Your task to perform on an android device: Open Yahoo.com Image 0: 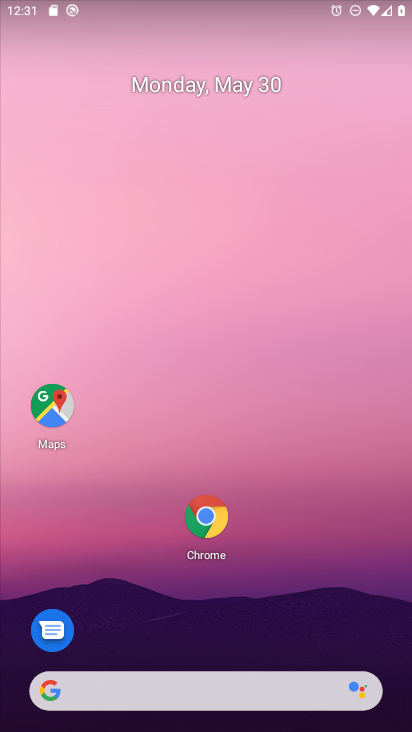
Step 0: press home button
Your task to perform on an android device: Open Yahoo.com Image 1: 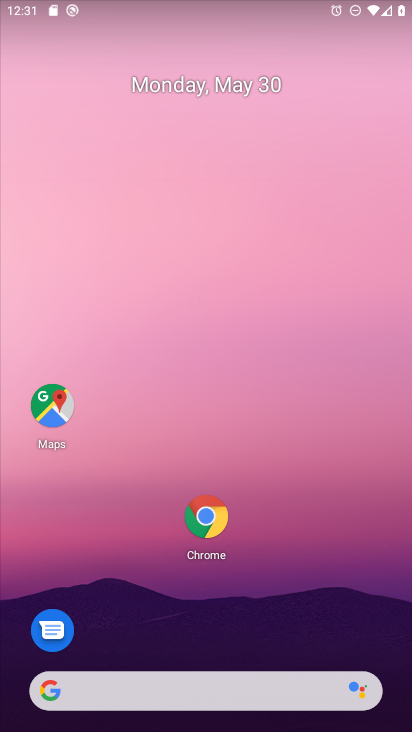
Step 1: click (204, 520)
Your task to perform on an android device: Open Yahoo.com Image 2: 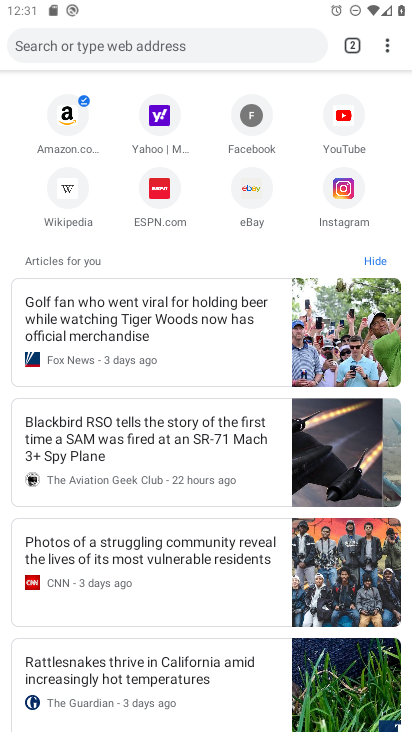
Step 2: click (159, 126)
Your task to perform on an android device: Open Yahoo.com Image 3: 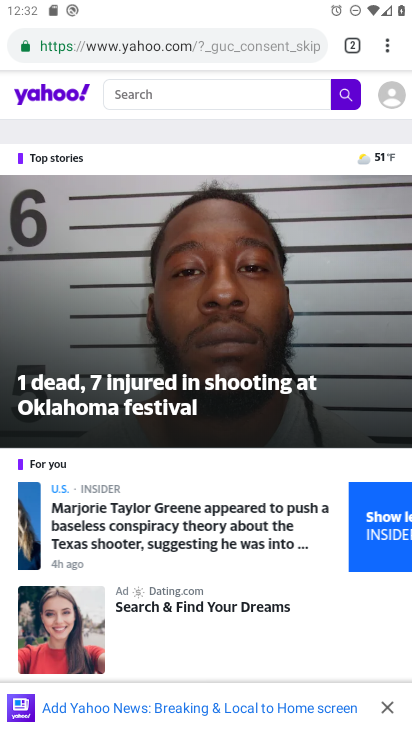
Step 3: task complete